Your task to perform on an android device: Open ESPN.com Image 0: 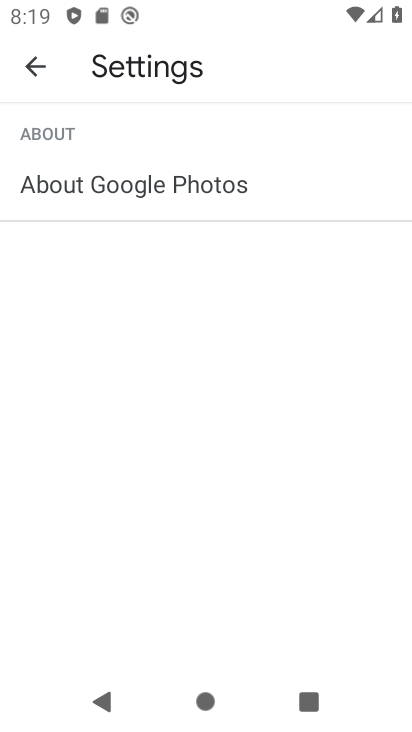
Step 0: press home button
Your task to perform on an android device: Open ESPN.com Image 1: 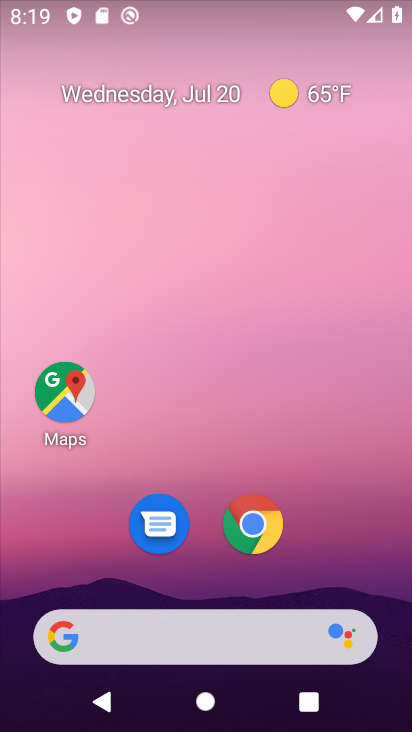
Step 1: click (191, 652)
Your task to perform on an android device: Open ESPN.com Image 2: 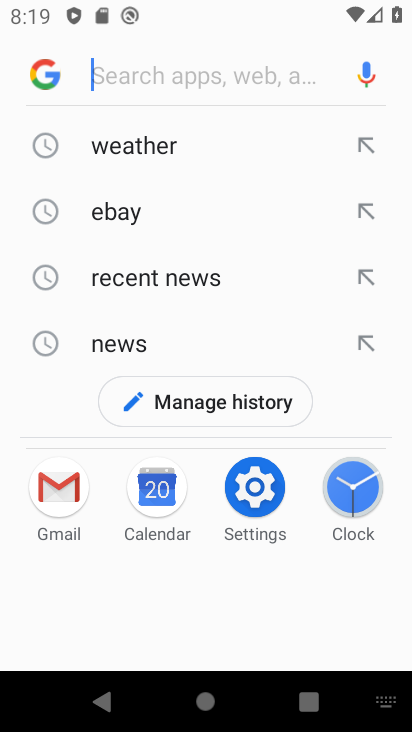
Step 2: type "espn.com"
Your task to perform on an android device: Open ESPN.com Image 3: 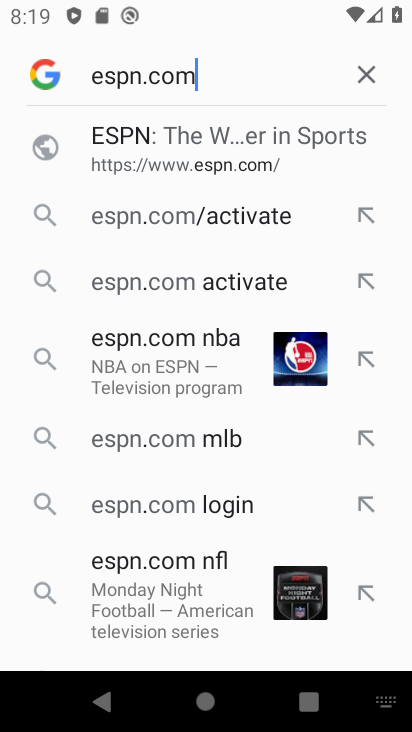
Step 3: click (202, 162)
Your task to perform on an android device: Open ESPN.com Image 4: 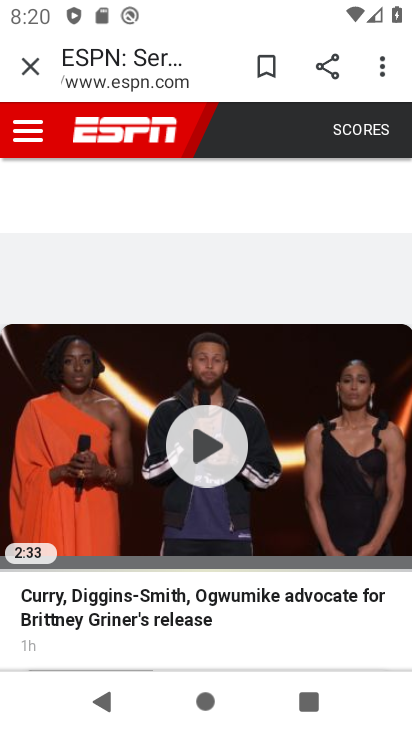
Step 4: task complete